Your task to perform on an android device: Go to eBay Image 0: 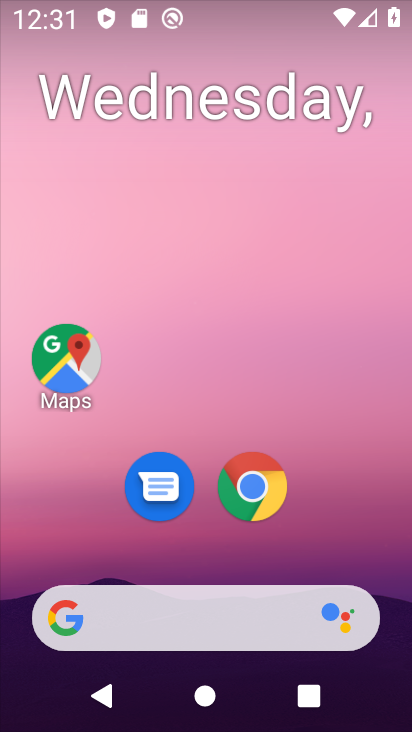
Step 0: drag from (369, 538) to (361, 70)
Your task to perform on an android device: Go to eBay Image 1: 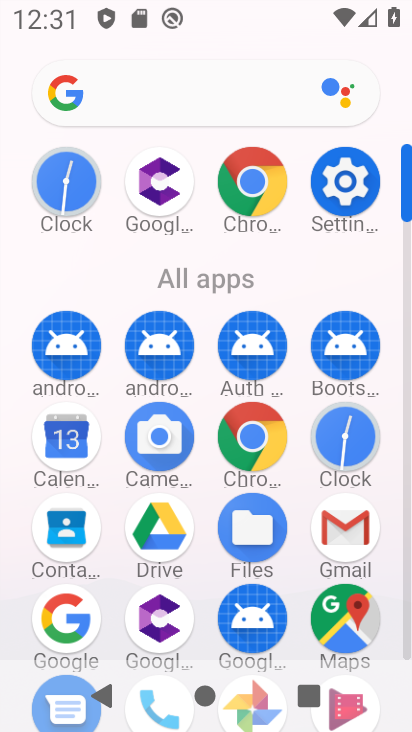
Step 1: click (263, 432)
Your task to perform on an android device: Go to eBay Image 2: 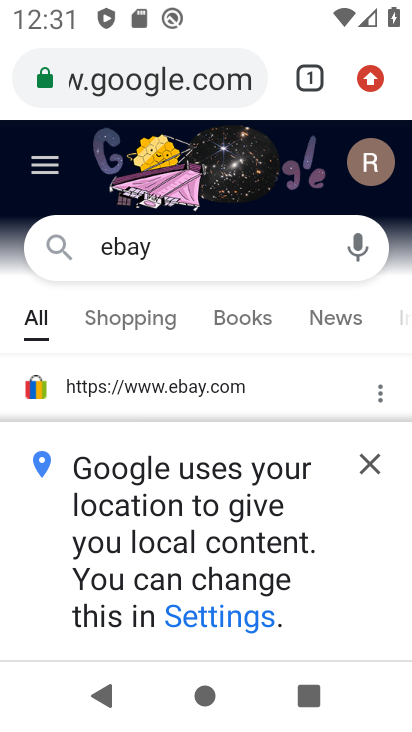
Step 2: click (173, 87)
Your task to perform on an android device: Go to eBay Image 3: 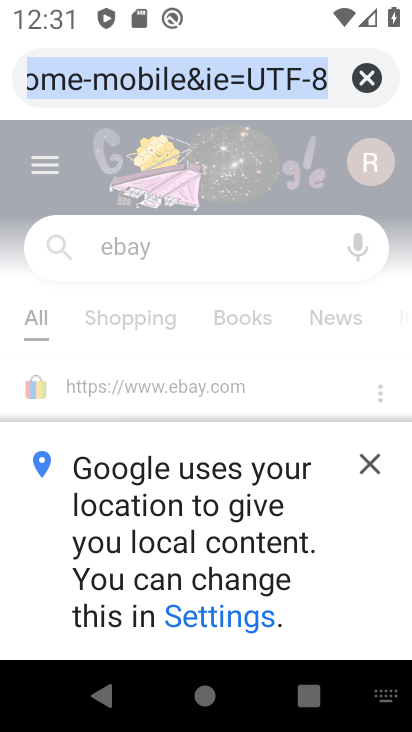
Step 3: type "ebay"
Your task to perform on an android device: Go to eBay Image 4: 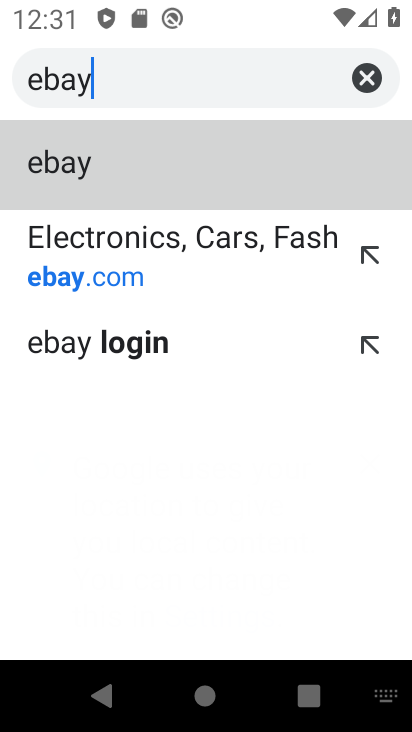
Step 4: click (233, 177)
Your task to perform on an android device: Go to eBay Image 5: 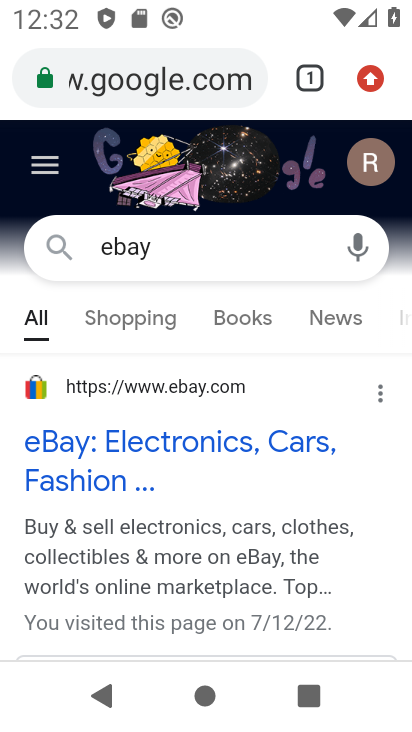
Step 5: task complete